Your task to perform on an android device: set the timer Image 0: 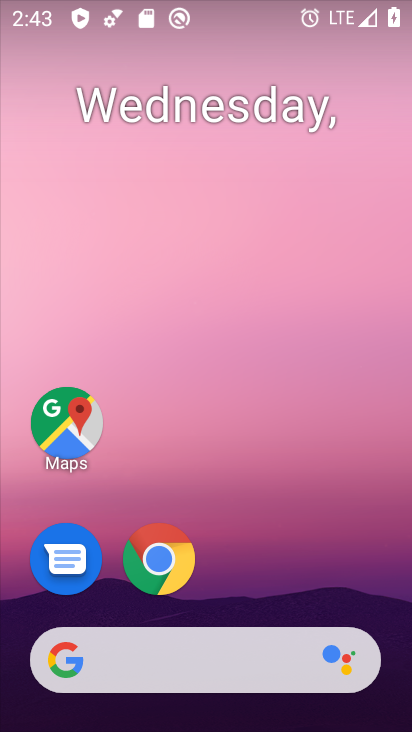
Step 0: drag from (234, 584) to (340, 28)
Your task to perform on an android device: set the timer Image 1: 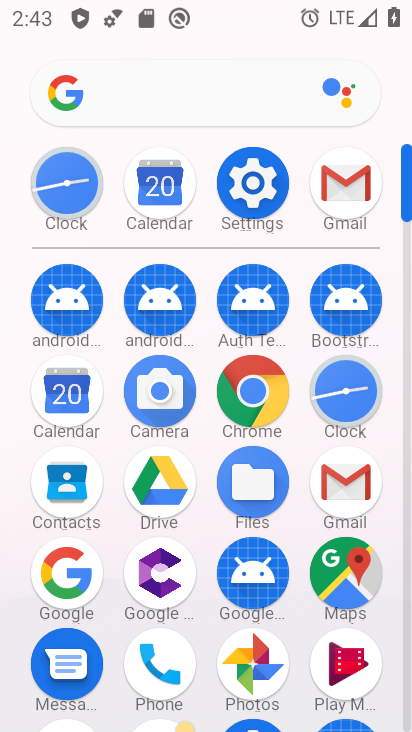
Step 1: click (341, 395)
Your task to perform on an android device: set the timer Image 2: 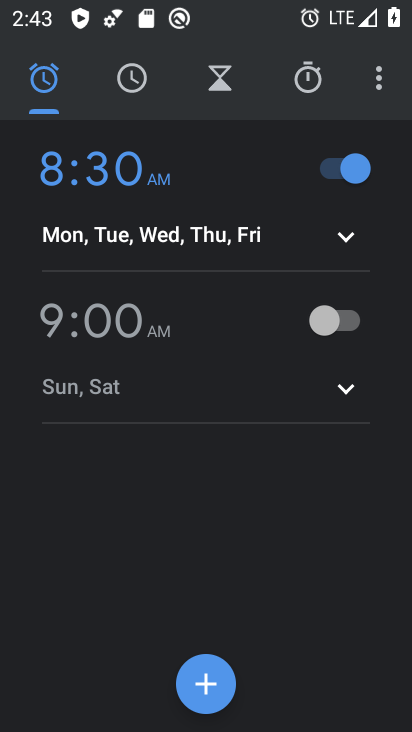
Step 2: click (141, 71)
Your task to perform on an android device: set the timer Image 3: 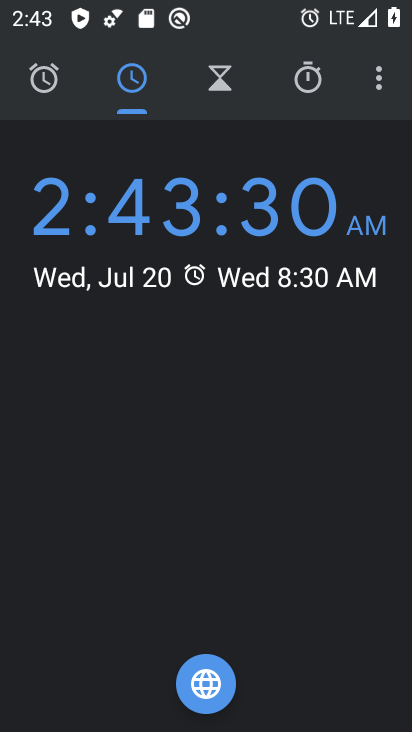
Step 3: click (221, 72)
Your task to perform on an android device: set the timer Image 4: 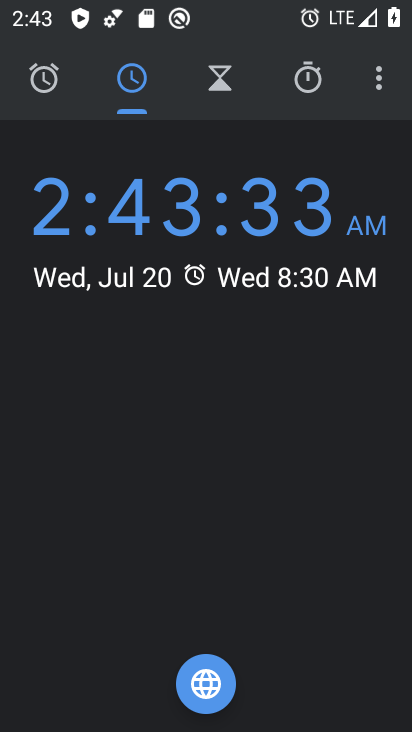
Step 4: click (223, 84)
Your task to perform on an android device: set the timer Image 5: 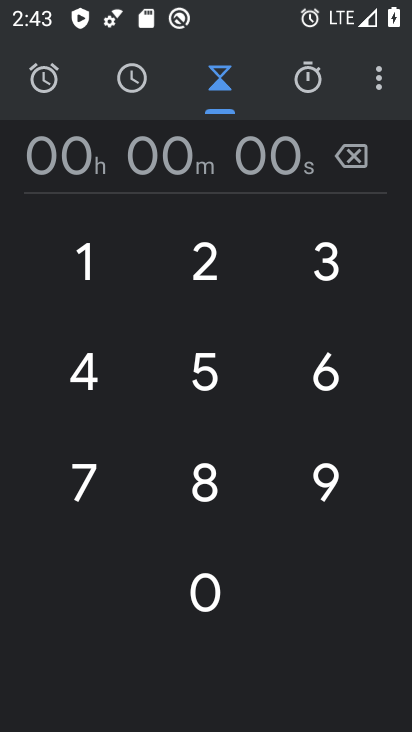
Step 5: click (207, 244)
Your task to perform on an android device: set the timer Image 6: 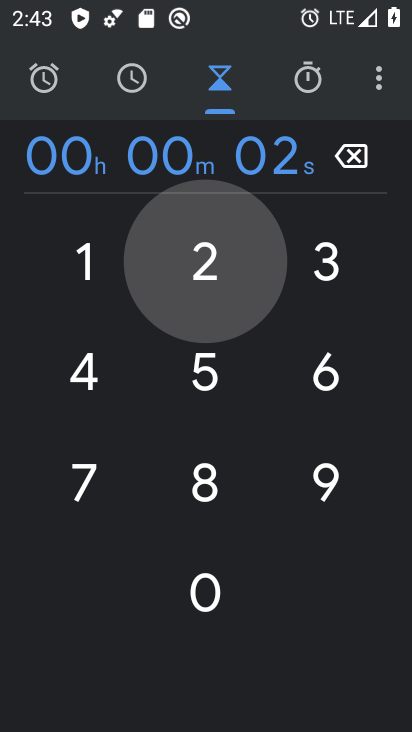
Step 6: click (317, 262)
Your task to perform on an android device: set the timer Image 7: 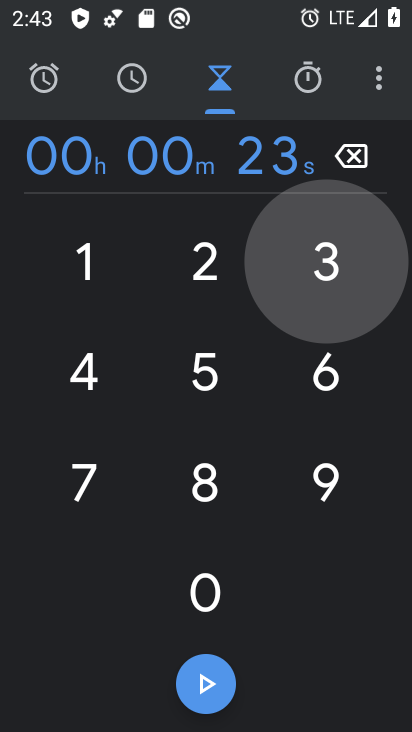
Step 7: click (214, 372)
Your task to perform on an android device: set the timer Image 8: 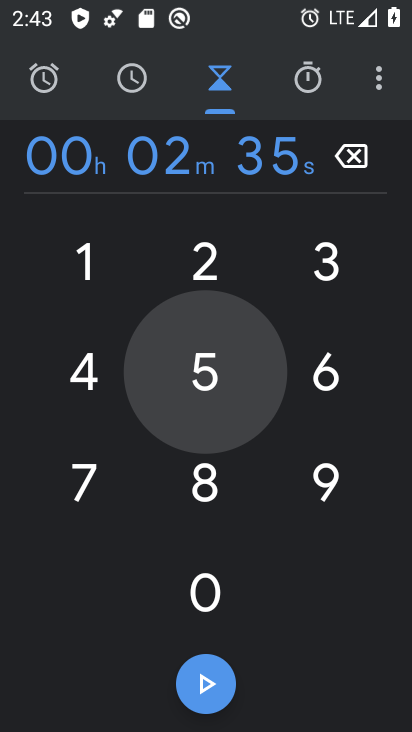
Step 8: click (281, 371)
Your task to perform on an android device: set the timer Image 9: 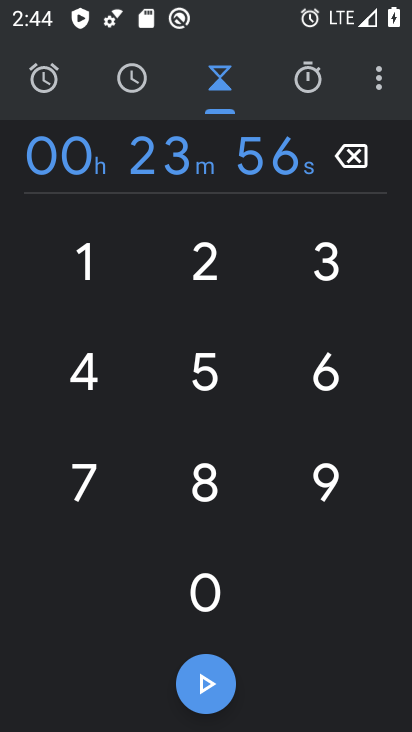
Step 9: click (233, 277)
Your task to perform on an android device: set the timer Image 10: 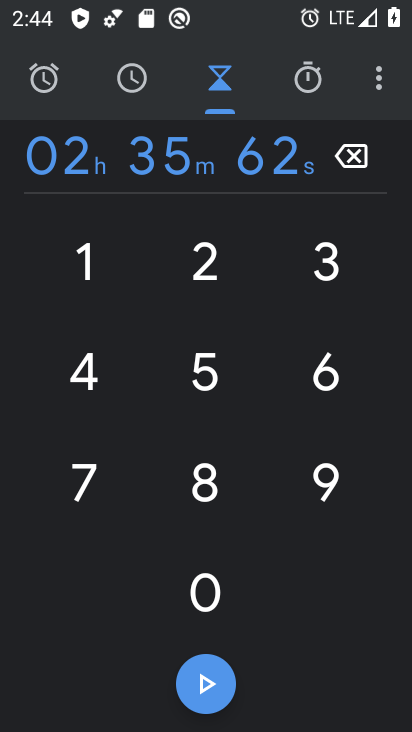
Step 10: task complete